Your task to perform on an android device: open app "Microsoft Authenticator" (install if not already installed) Image 0: 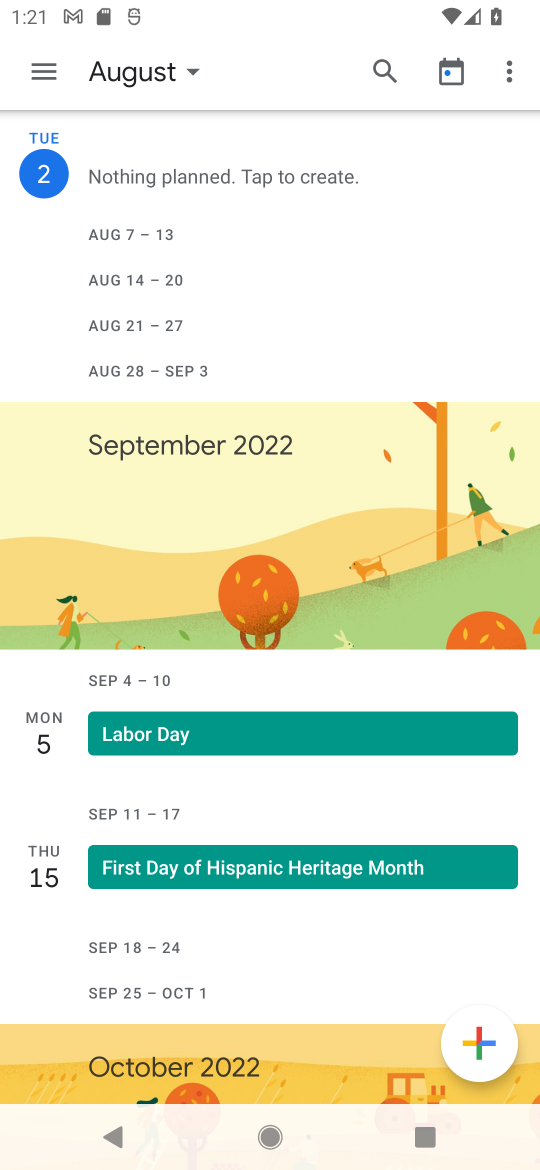
Step 0: press home button
Your task to perform on an android device: open app "Microsoft Authenticator" (install if not already installed) Image 1: 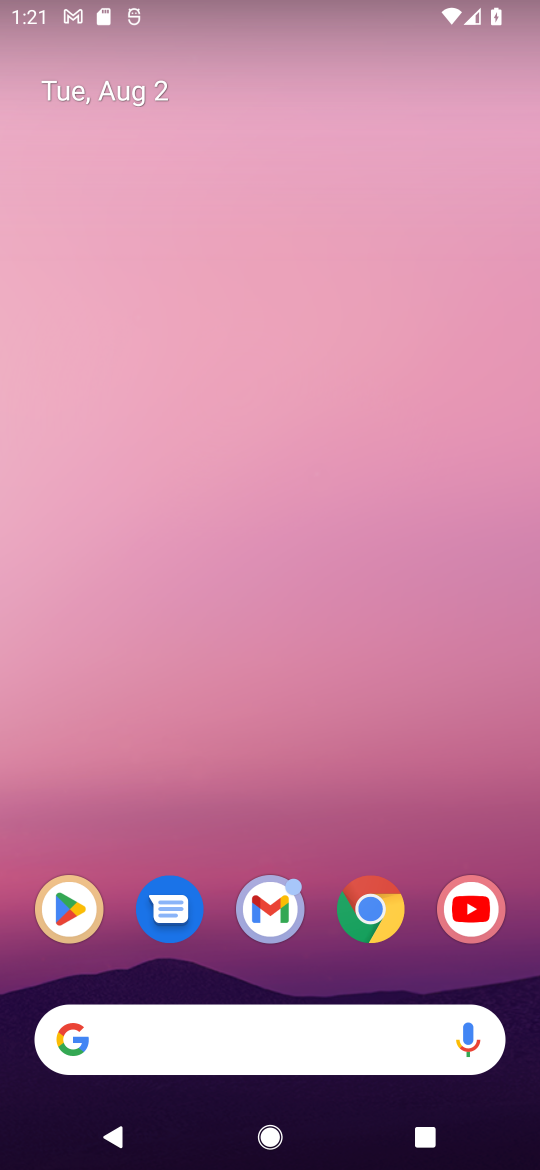
Step 1: click (79, 894)
Your task to perform on an android device: open app "Microsoft Authenticator" (install if not already installed) Image 2: 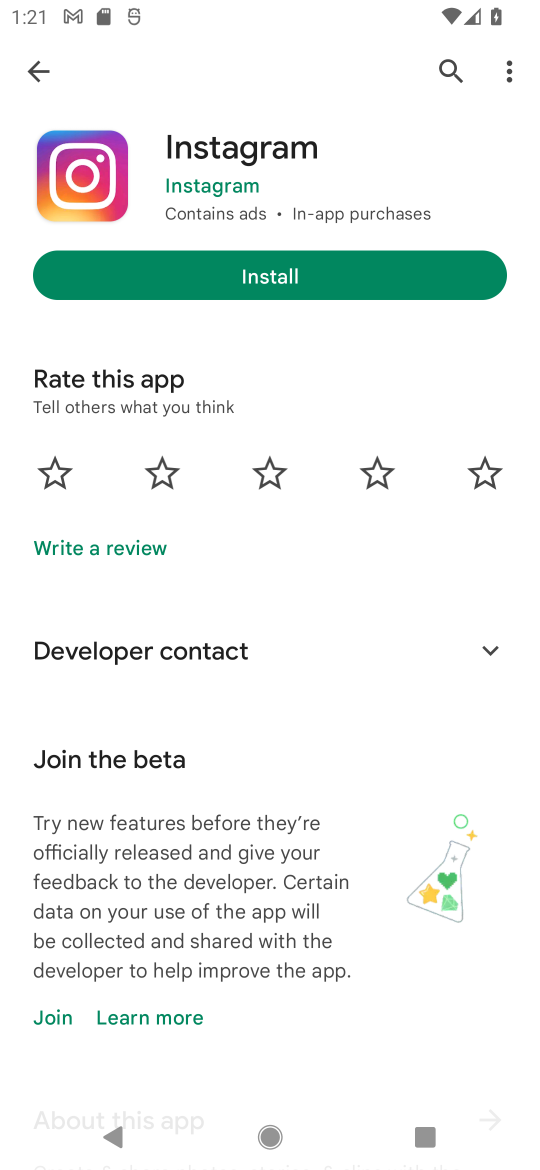
Step 2: click (40, 69)
Your task to perform on an android device: open app "Microsoft Authenticator" (install if not already installed) Image 3: 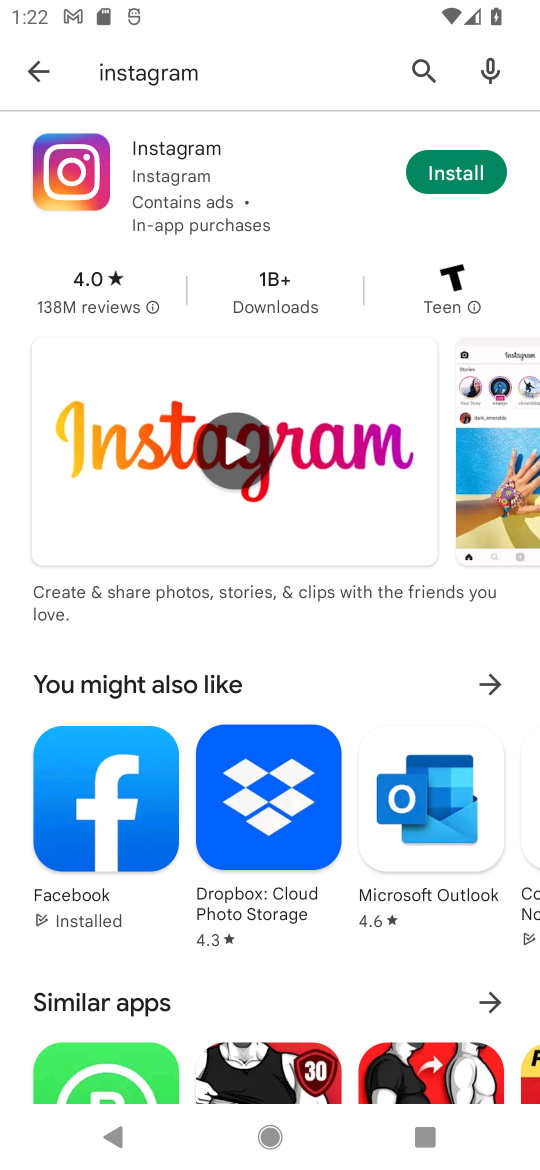
Step 3: click (419, 69)
Your task to perform on an android device: open app "Microsoft Authenticator" (install if not already installed) Image 4: 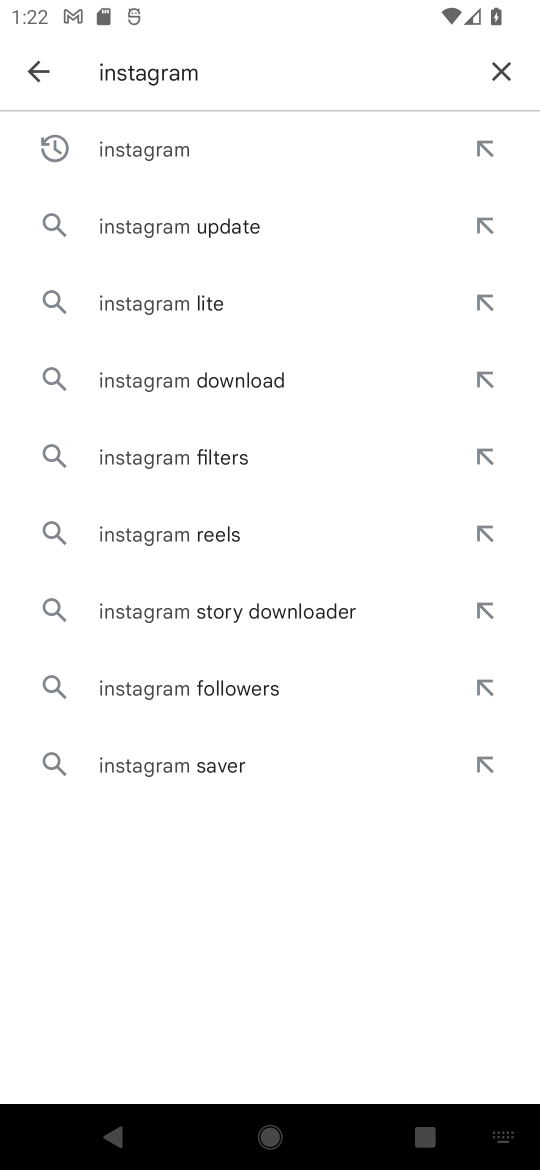
Step 4: click (501, 73)
Your task to perform on an android device: open app "Microsoft Authenticator" (install if not already installed) Image 5: 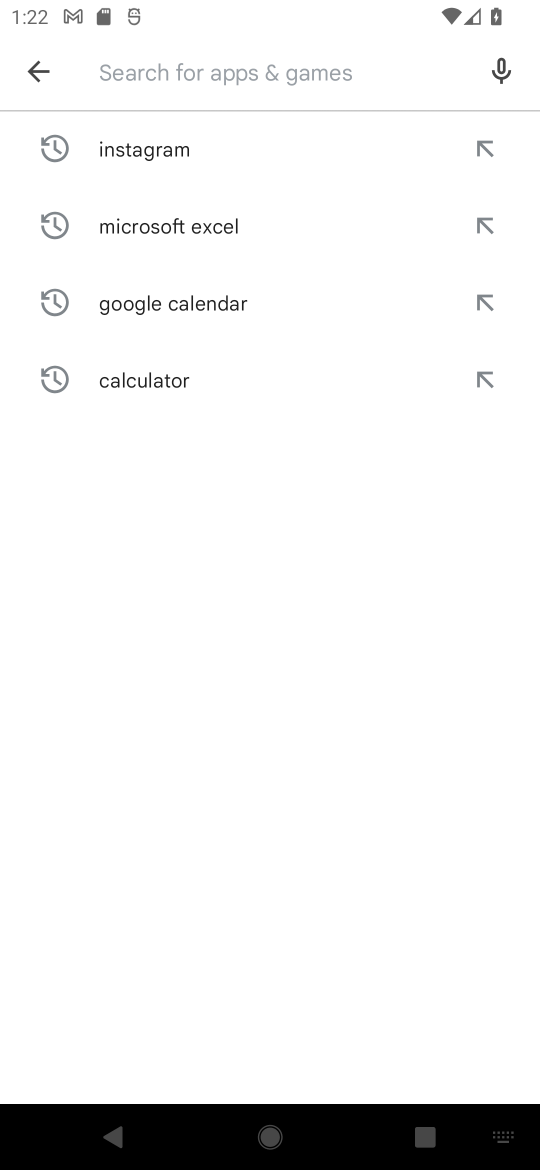
Step 5: type ""Microsoft Authenticato"
Your task to perform on an android device: open app "Microsoft Authenticator" (install if not already installed) Image 6: 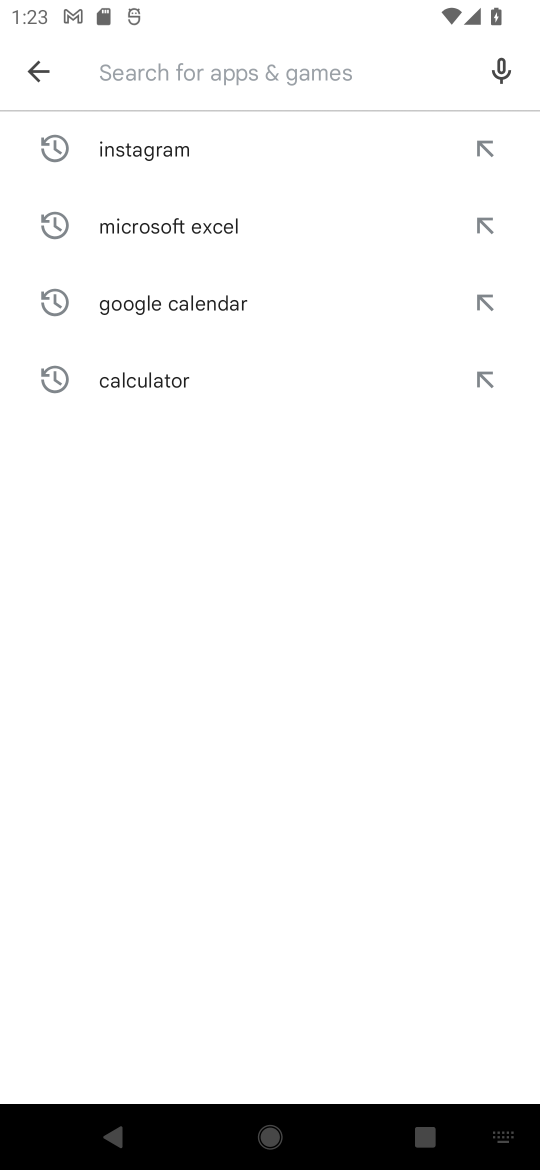
Step 6: type "Microsoft Authenticator "
Your task to perform on an android device: open app "Microsoft Authenticator" (install if not already installed) Image 7: 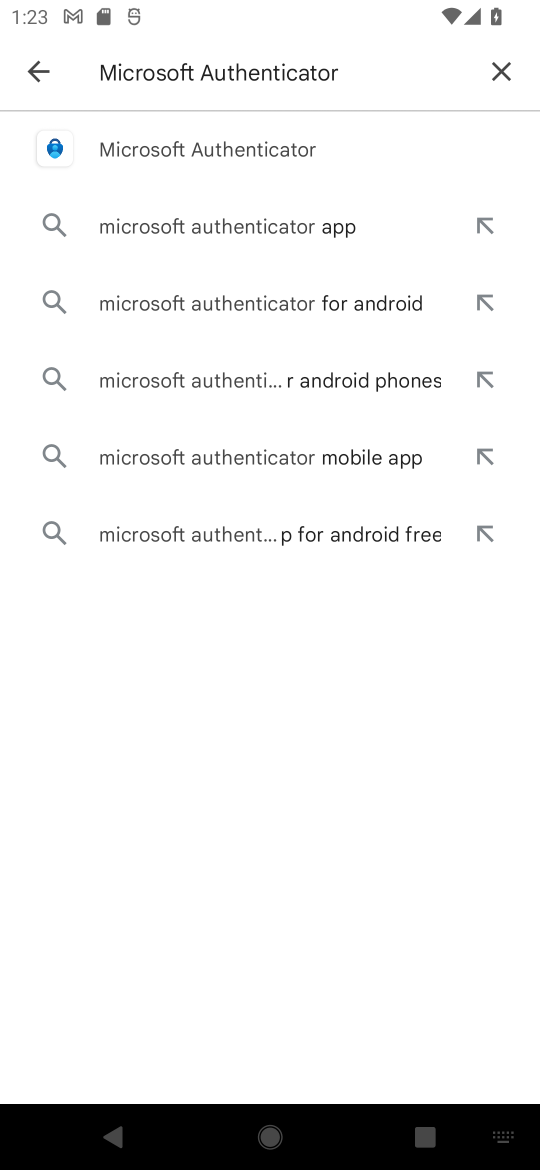
Step 7: click (231, 158)
Your task to perform on an android device: open app "Microsoft Authenticator" (install if not already installed) Image 8: 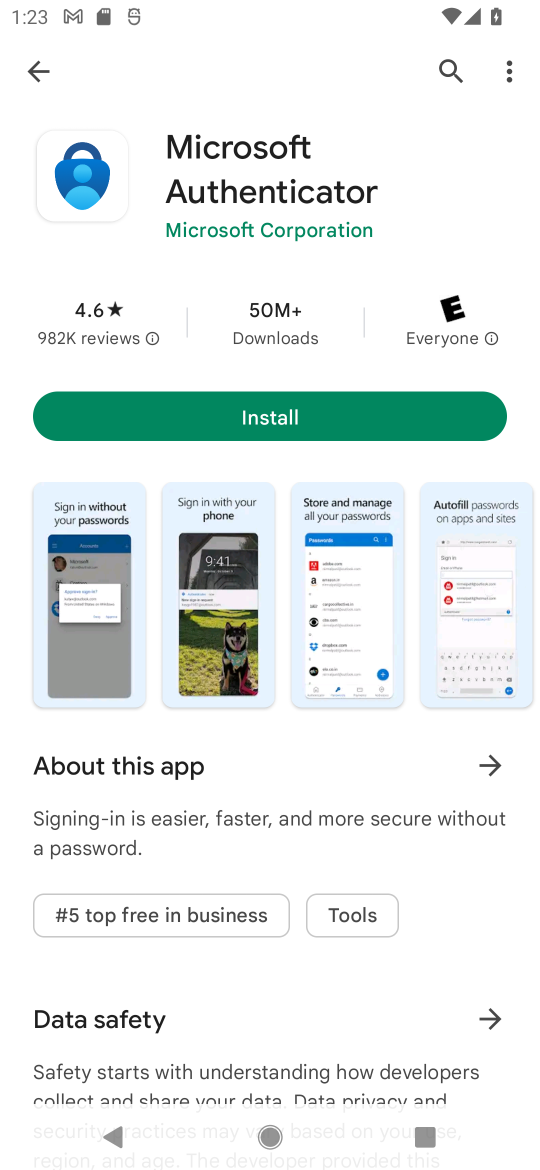
Step 8: click (306, 430)
Your task to perform on an android device: open app "Microsoft Authenticator" (install if not already installed) Image 9: 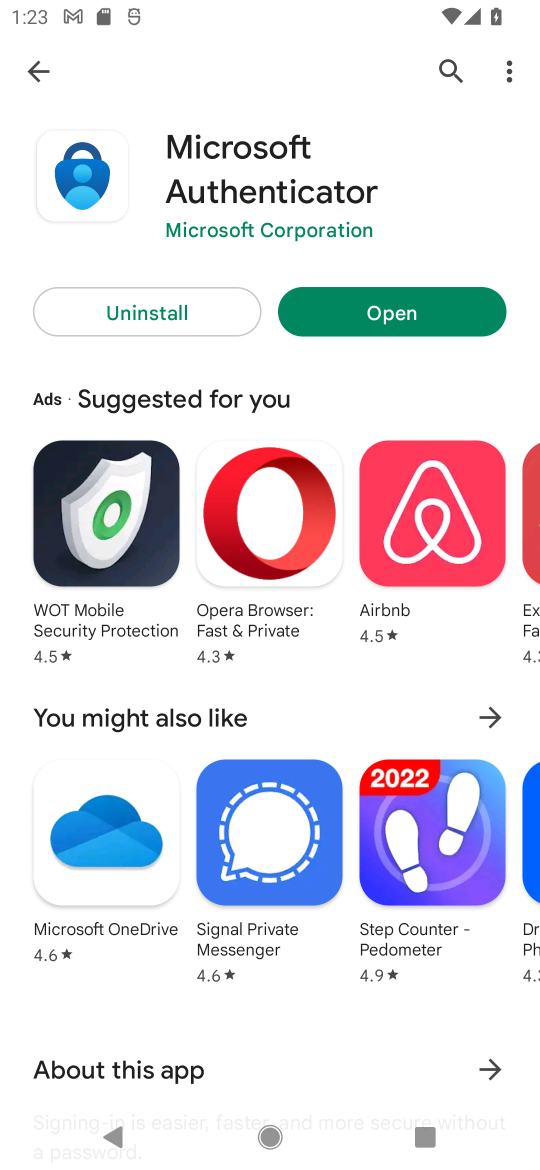
Step 9: click (443, 313)
Your task to perform on an android device: open app "Microsoft Authenticator" (install if not already installed) Image 10: 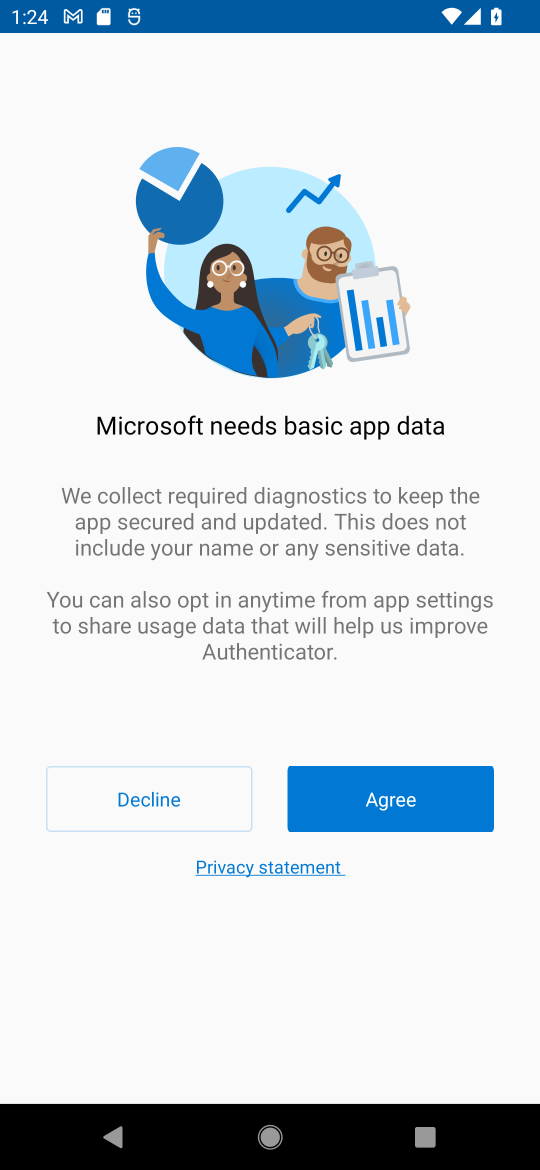
Step 10: click (443, 807)
Your task to perform on an android device: open app "Microsoft Authenticator" (install if not already installed) Image 11: 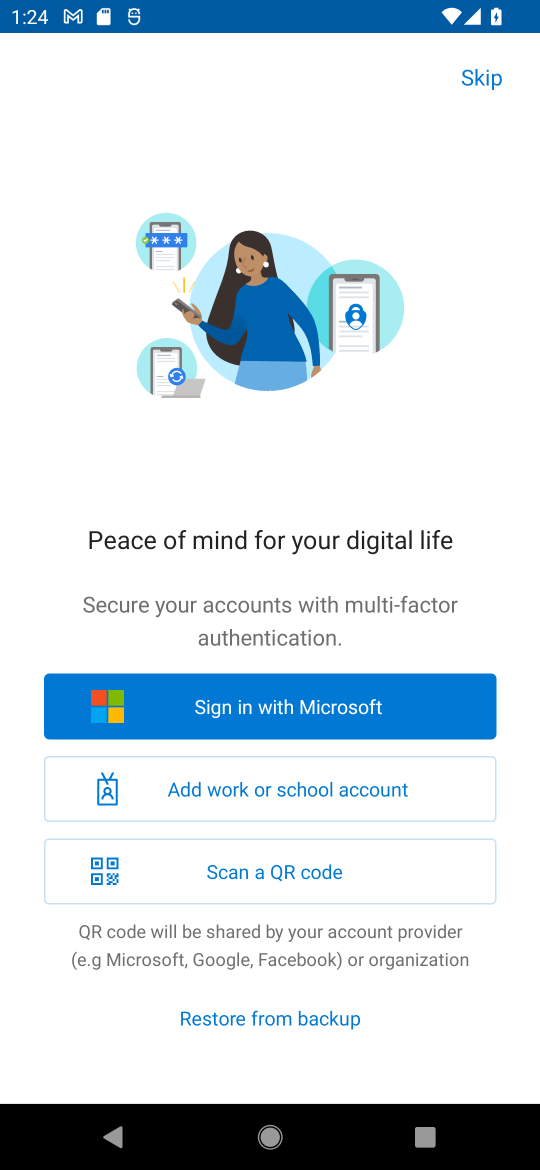
Step 11: task complete